Your task to perform on an android device: Go to internet settings Image 0: 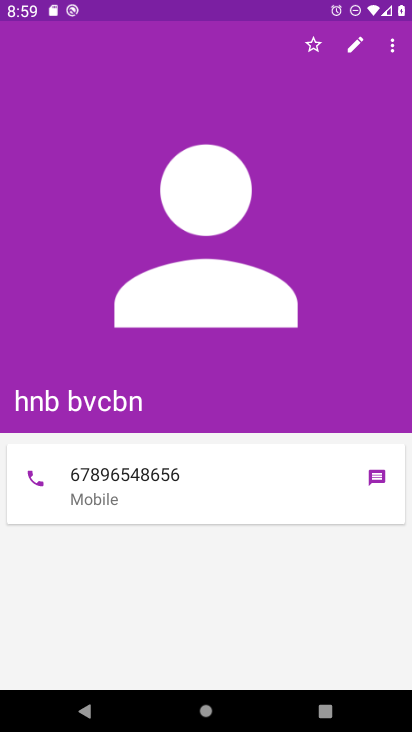
Step 0: press home button
Your task to perform on an android device: Go to internet settings Image 1: 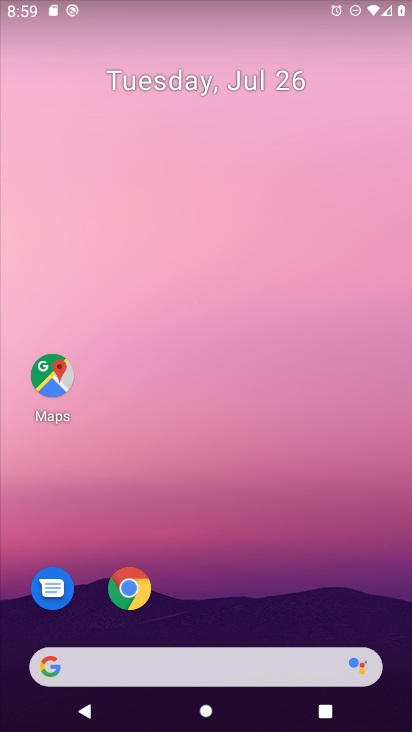
Step 1: drag from (188, 641) to (250, 144)
Your task to perform on an android device: Go to internet settings Image 2: 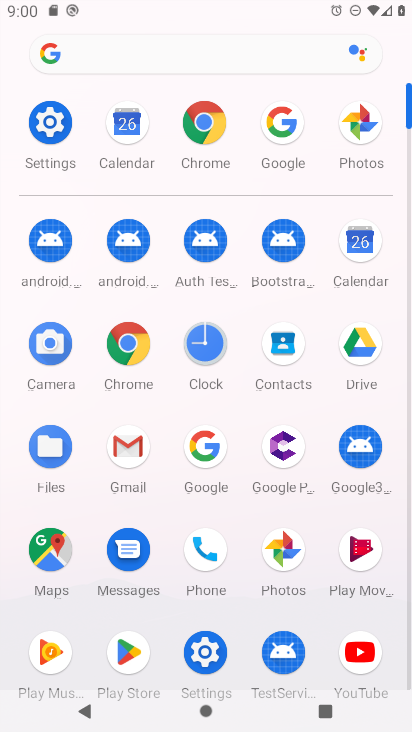
Step 2: click (65, 132)
Your task to perform on an android device: Go to internet settings Image 3: 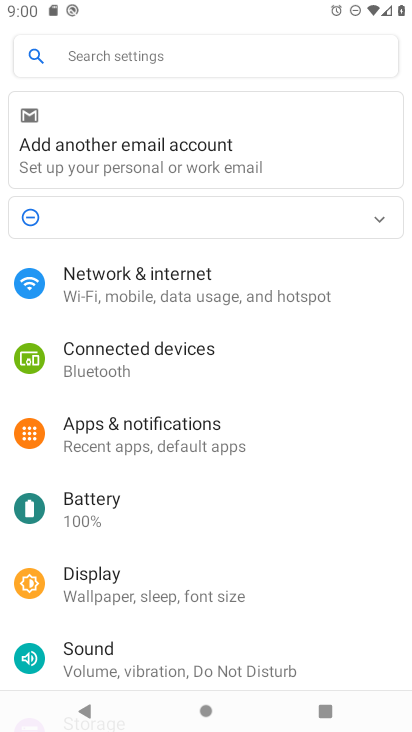
Step 3: click (136, 301)
Your task to perform on an android device: Go to internet settings Image 4: 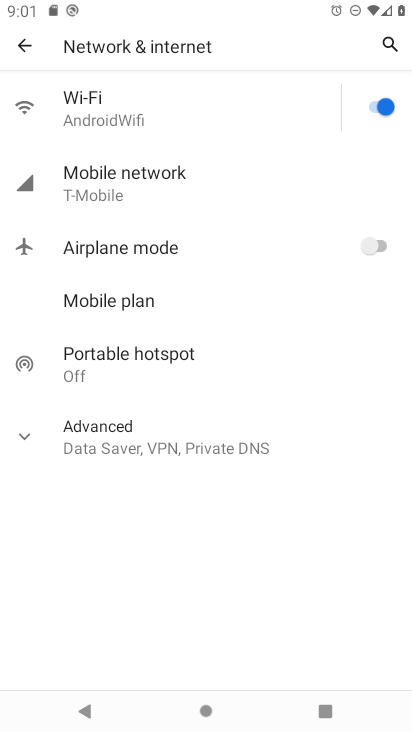
Step 4: click (123, 200)
Your task to perform on an android device: Go to internet settings Image 5: 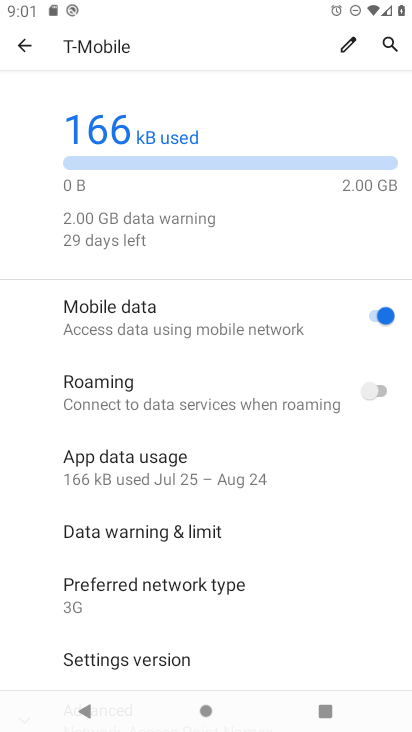
Step 5: task complete